Your task to perform on an android device: Go to Yahoo.com Image 0: 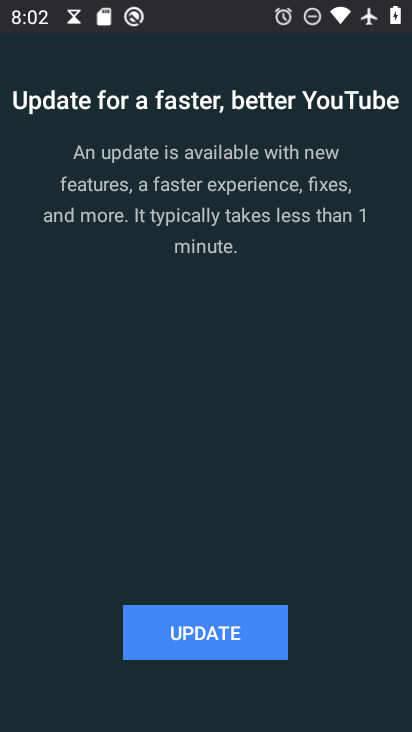
Step 0: press home button
Your task to perform on an android device: Go to Yahoo.com Image 1: 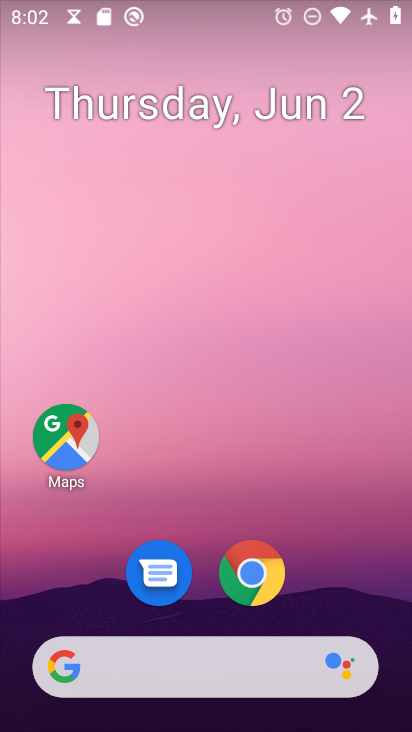
Step 1: click (248, 576)
Your task to perform on an android device: Go to Yahoo.com Image 2: 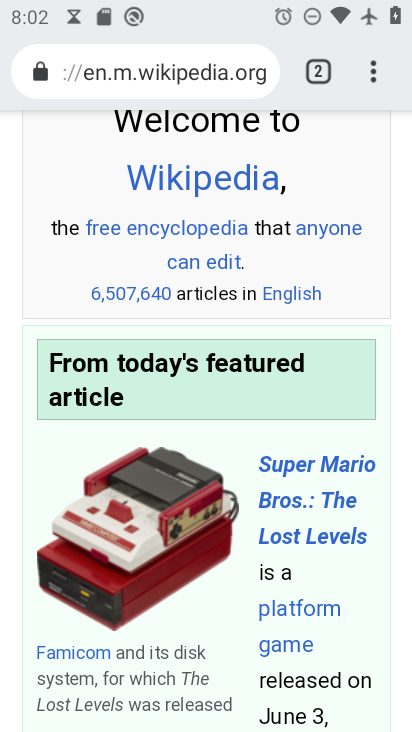
Step 2: drag from (373, 80) to (242, 136)
Your task to perform on an android device: Go to Yahoo.com Image 3: 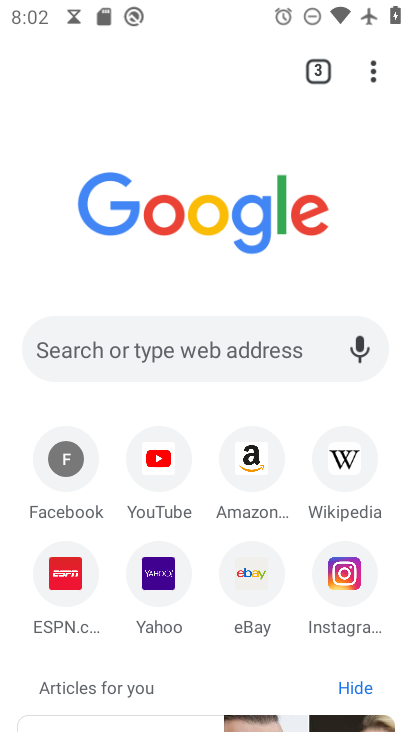
Step 3: click (161, 580)
Your task to perform on an android device: Go to Yahoo.com Image 4: 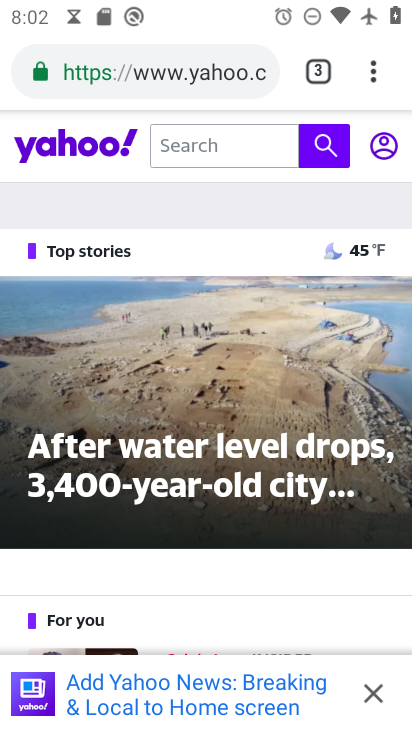
Step 4: task complete